Your task to perform on an android device: Go to Amazon Image 0: 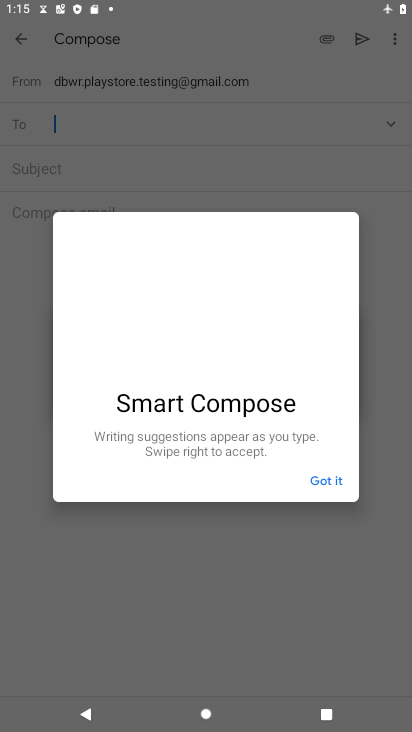
Step 0: press back button
Your task to perform on an android device: Go to Amazon Image 1: 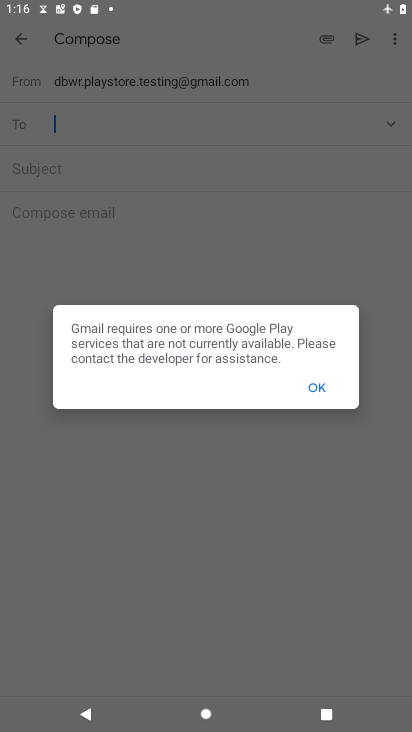
Step 1: press back button
Your task to perform on an android device: Go to Amazon Image 2: 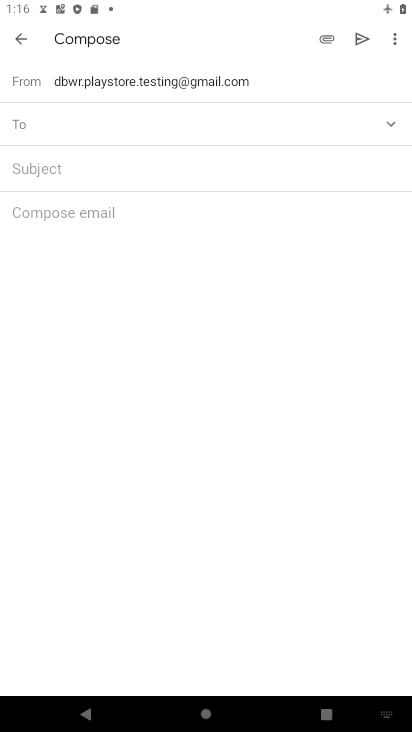
Step 2: press home button
Your task to perform on an android device: Go to Amazon Image 3: 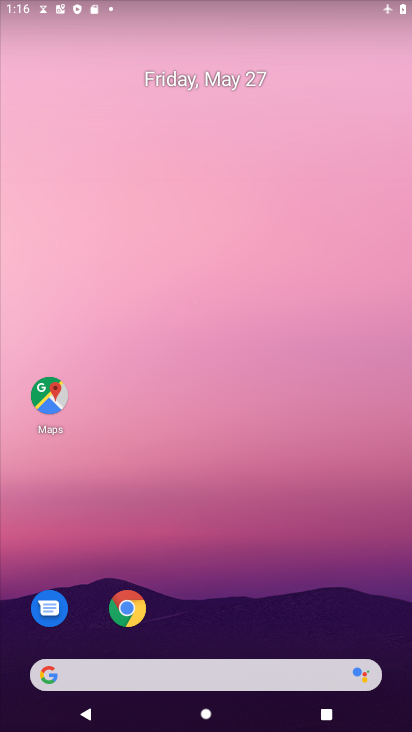
Step 3: click (128, 608)
Your task to perform on an android device: Go to Amazon Image 4: 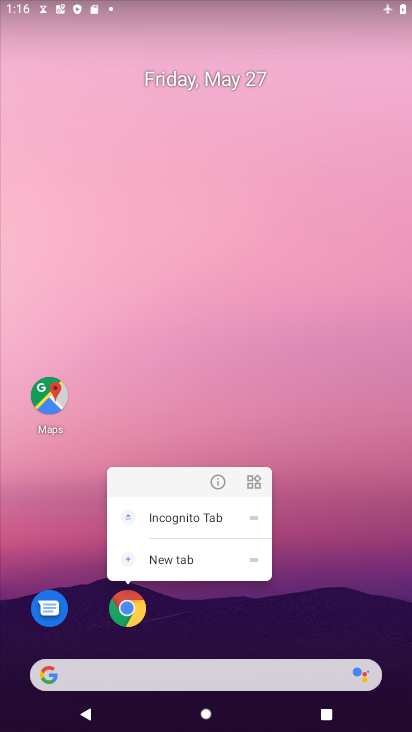
Step 4: click (133, 610)
Your task to perform on an android device: Go to Amazon Image 5: 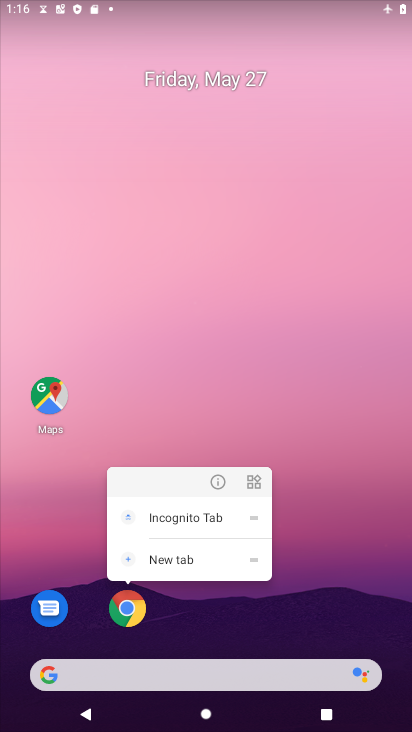
Step 5: click (118, 616)
Your task to perform on an android device: Go to Amazon Image 6: 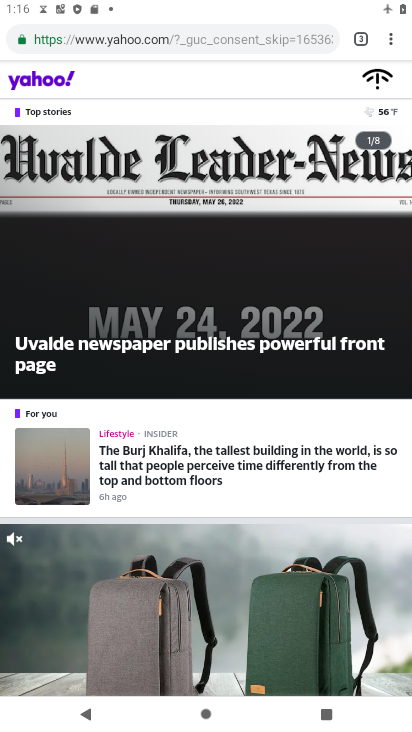
Step 6: click (368, 35)
Your task to perform on an android device: Go to Amazon Image 7: 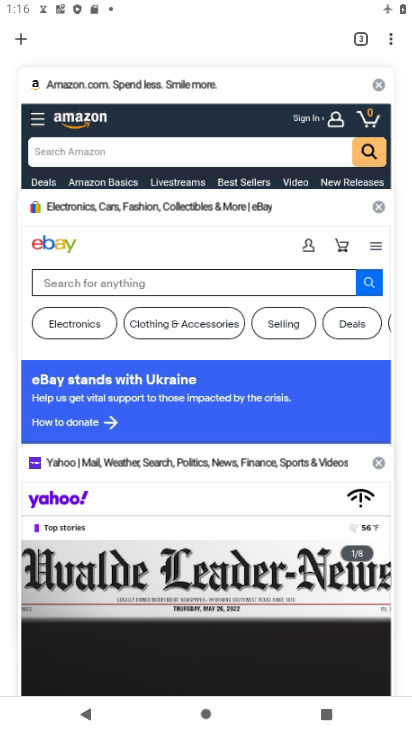
Step 7: click (199, 111)
Your task to perform on an android device: Go to Amazon Image 8: 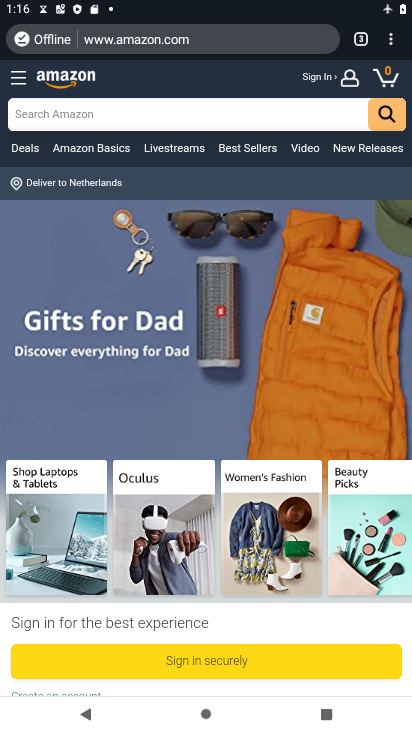
Step 8: task complete